Your task to perform on an android device: Search for Italian restaurants on Maps Image 0: 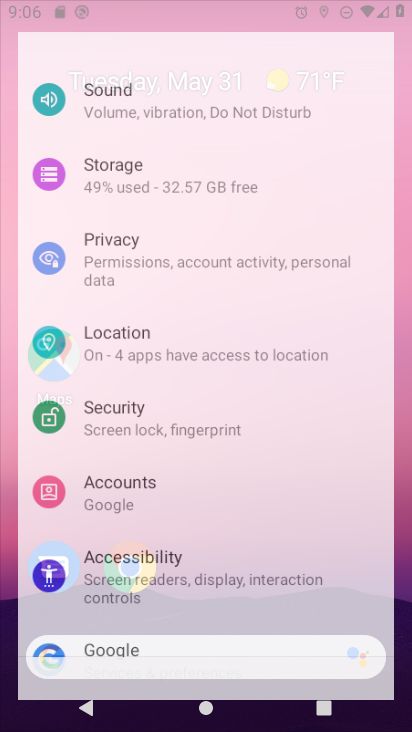
Step 0: click (51, 347)
Your task to perform on an android device: Search for Italian restaurants on Maps Image 1: 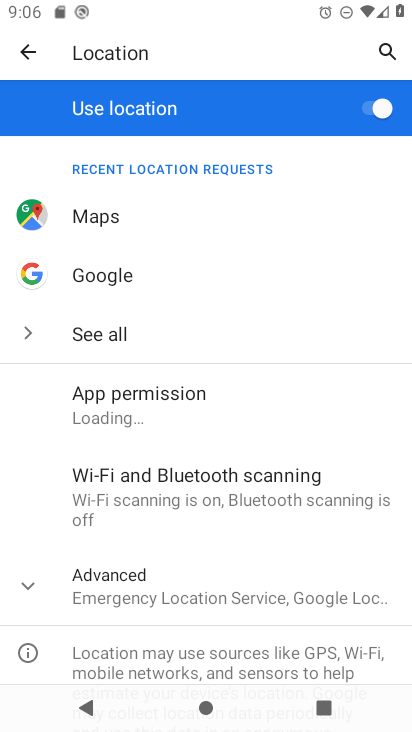
Step 1: press home button
Your task to perform on an android device: Search for Italian restaurants on Maps Image 2: 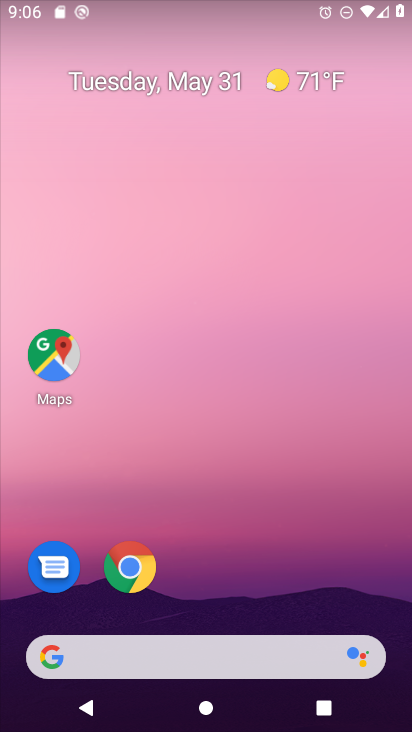
Step 2: click (65, 360)
Your task to perform on an android device: Search for Italian restaurants on Maps Image 3: 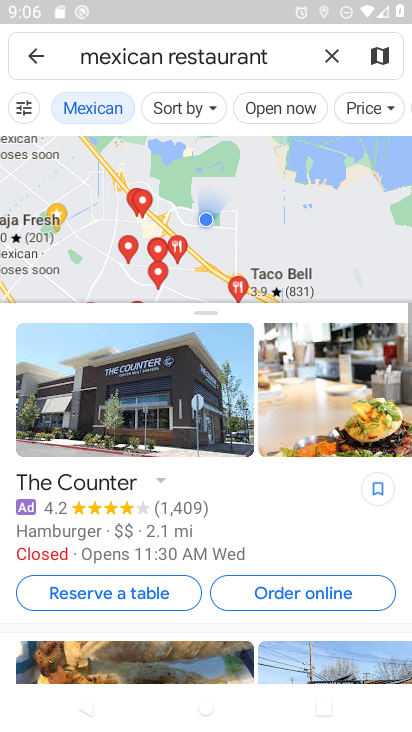
Step 3: click (332, 48)
Your task to perform on an android device: Search for Italian restaurants on Maps Image 4: 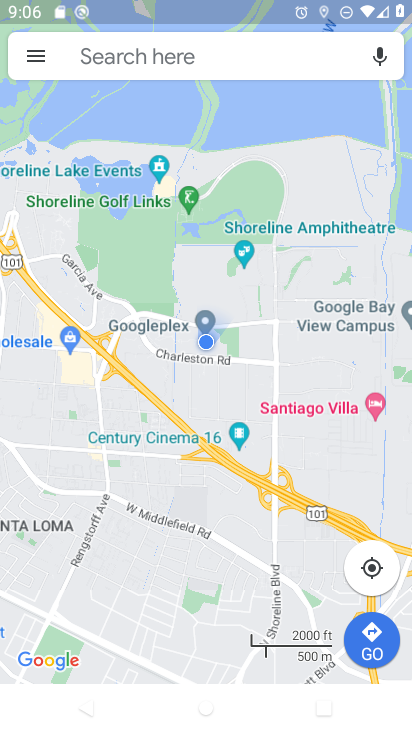
Step 4: click (244, 53)
Your task to perform on an android device: Search for Italian restaurants on Maps Image 5: 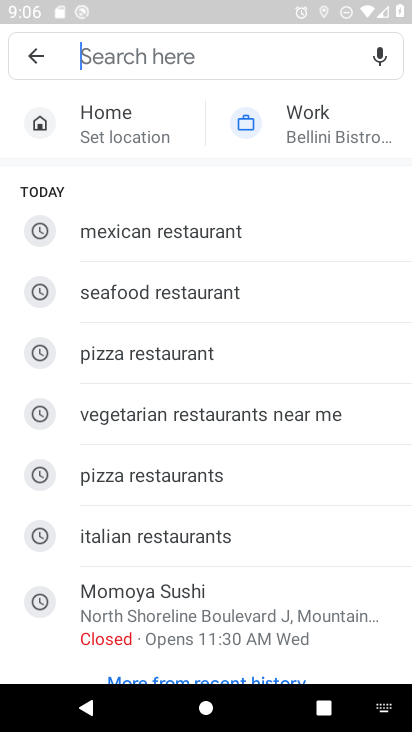
Step 5: click (150, 546)
Your task to perform on an android device: Search for Italian restaurants on Maps Image 6: 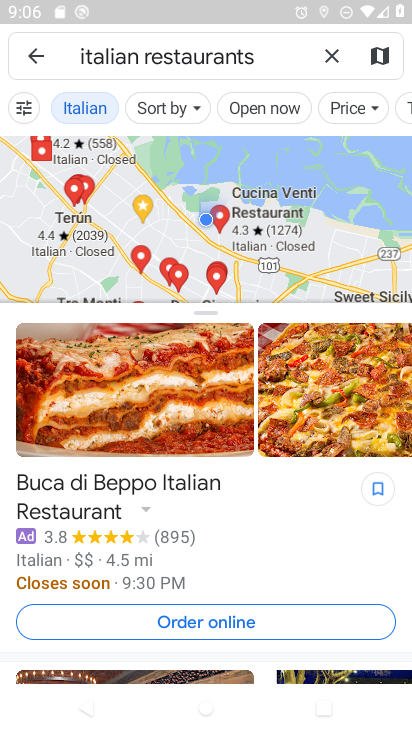
Step 6: task complete